Your task to perform on an android device: Open the web browser Image 0: 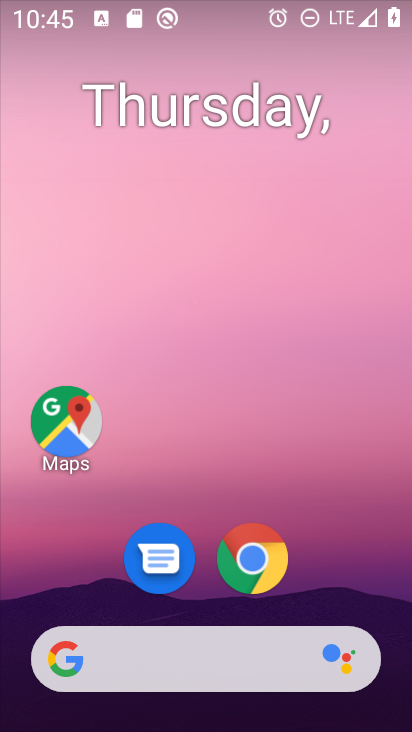
Step 0: click (249, 565)
Your task to perform on an android device: Open the web browser Image 1: 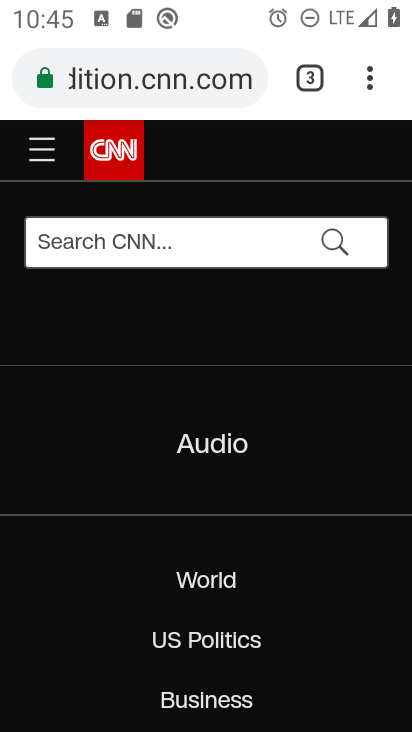
Step 1: click (368, 83)
Your task to perform on an android device: Open the web browser Image 2: 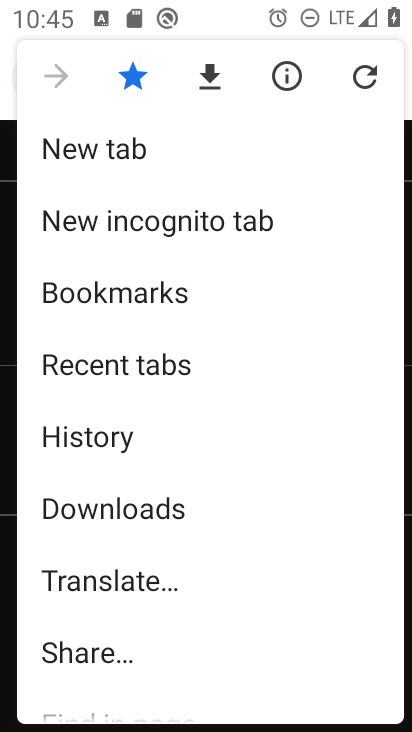
Step 2: click (68, 145)
Your task to perform on an android device: Open the web browser Image 3: 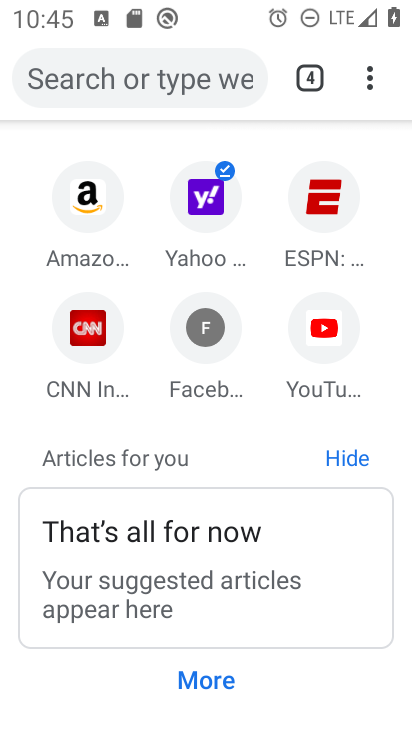
Step 3: task complete